Your task to perform on an android device: Open maps Image 0: 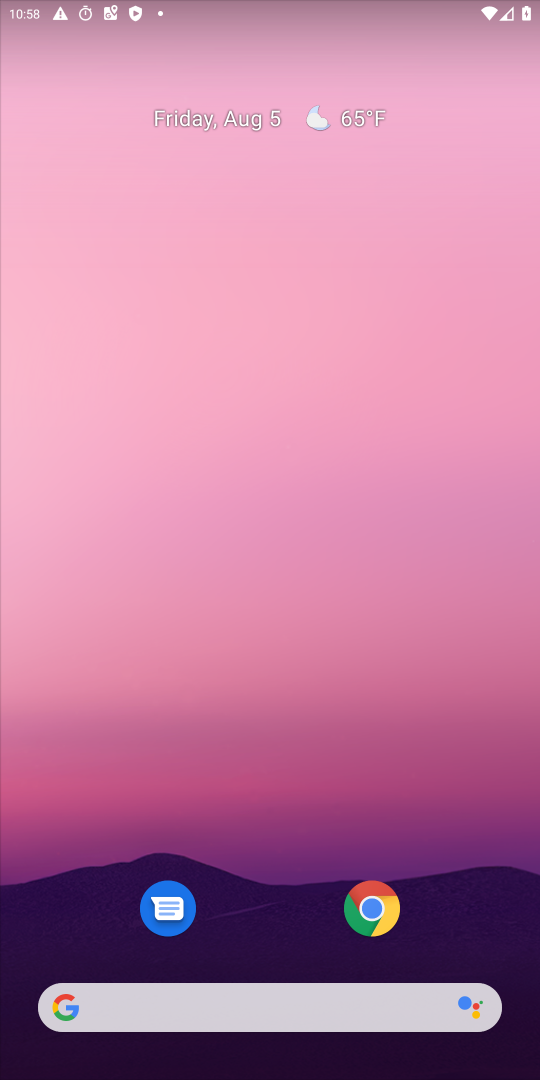
Step 0: drag from (27, 1026) to (457, 63)
Your task to perform on an android device: Open maps Image 1: 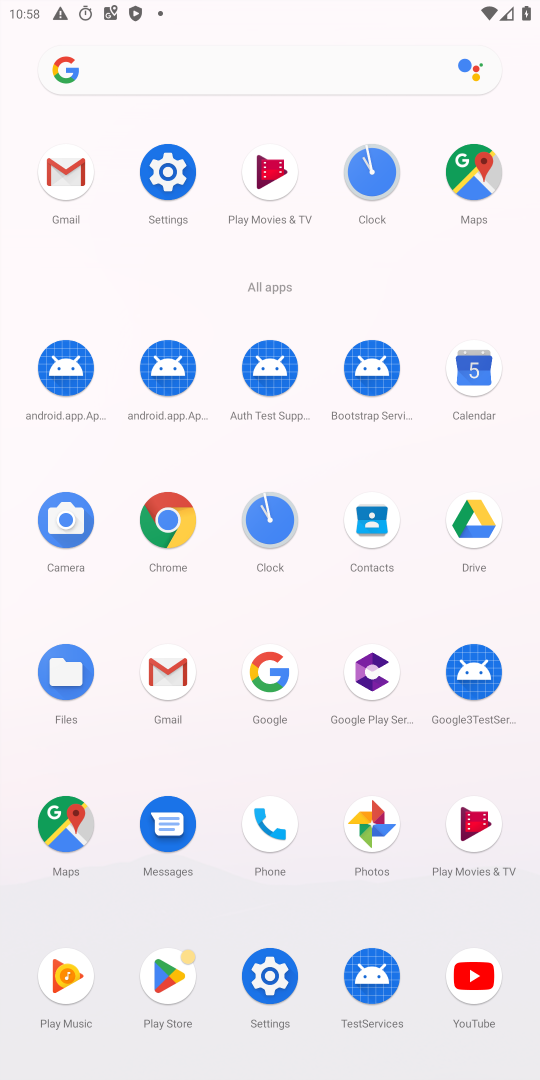
Step 1: click (67, 841)
Your task to perform on an android device: Open maps Image 2: 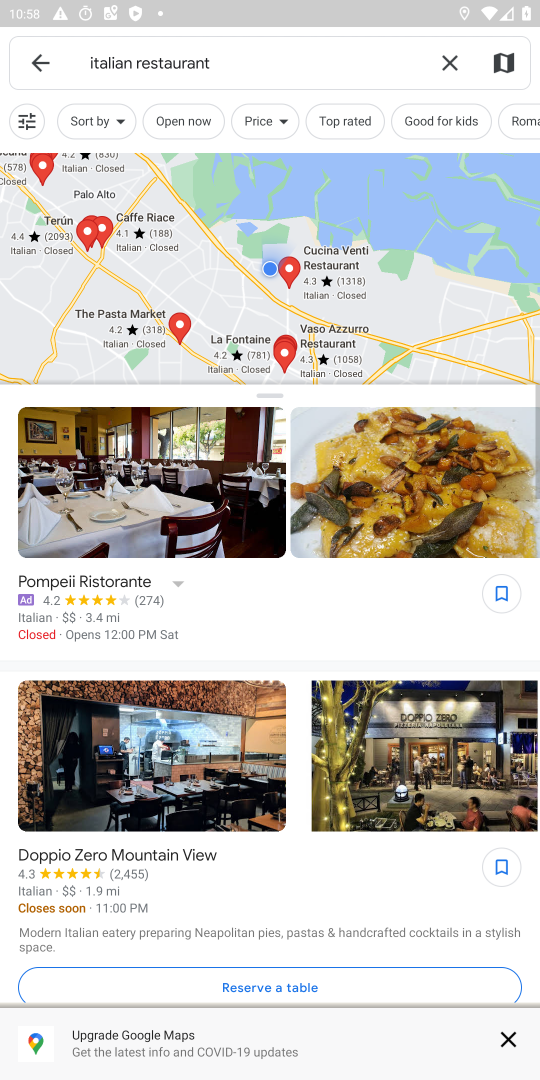
Step 2: click (41, 53)
Your task to perform on an android device: Open maps Image 3: 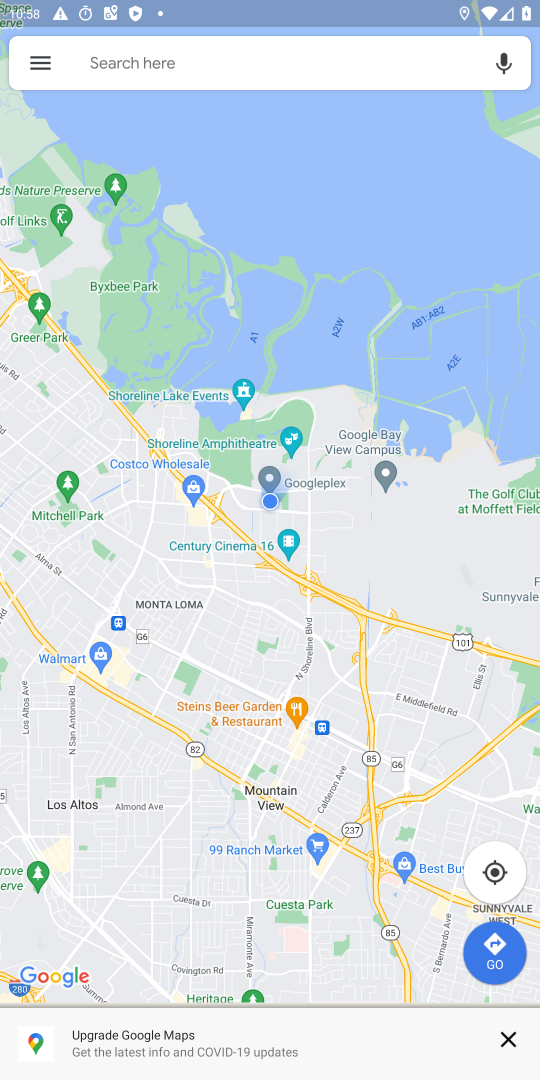
Step 3: task complete